Your task to perform on an android device: toggle pop-ups in chrome Image 0: 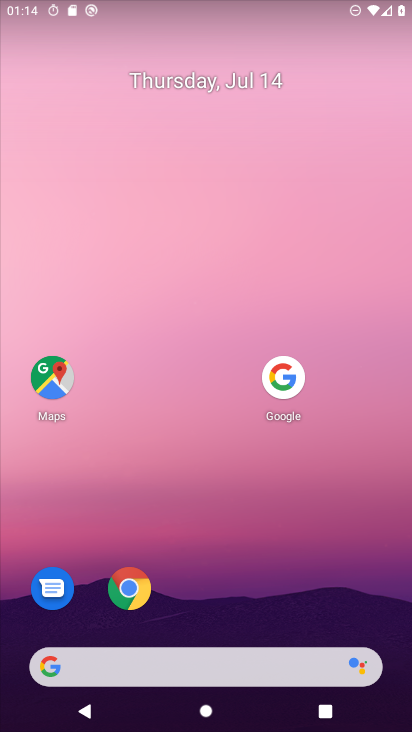
Step 0: click (119, 585)
Your task to perform on an android device: toggle pop-ups in chrome Image 1: 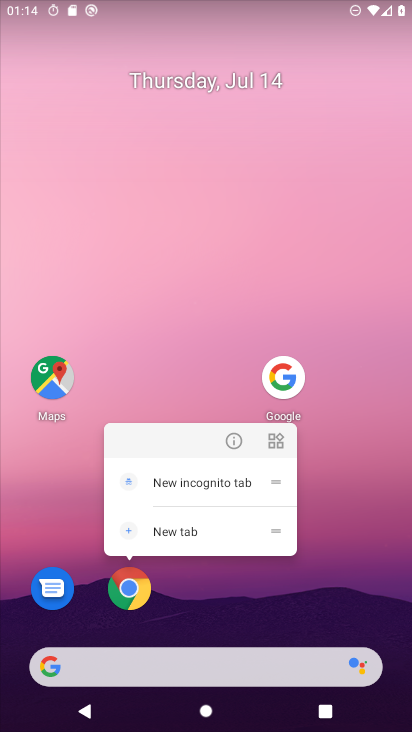
Step 1: click (122, 589)
Your task to perform on an android device: toggle pop-ups in chrome Image 2: 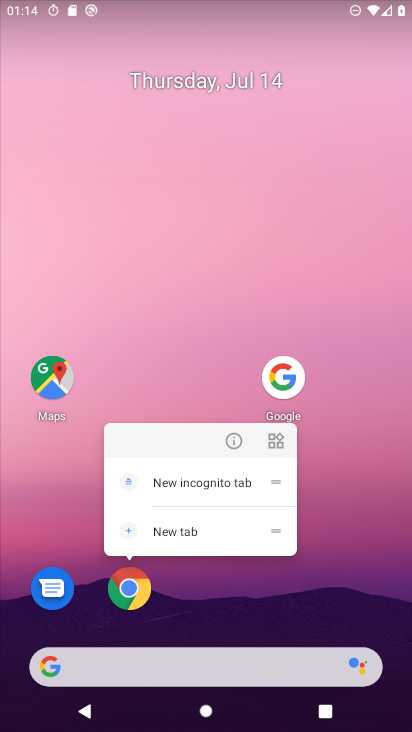
Step 2: click (130, 588)
Your task to perform on an android device: toggle pop-ups in chrome Image 3: 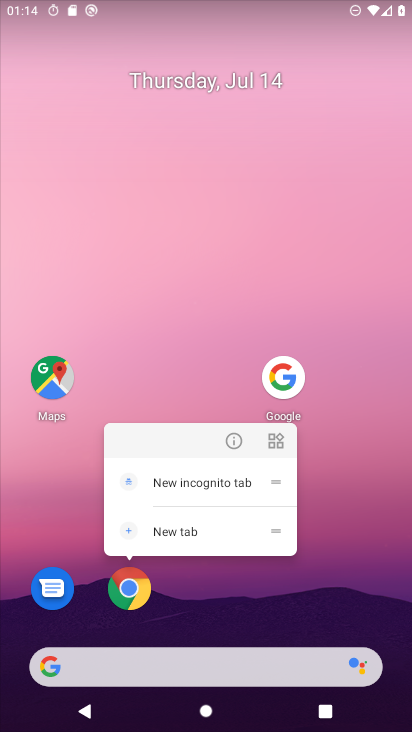
Step 3: click (130, 593)
Your task to perform on an android device: toggle pop-ups in chrome Image 4: 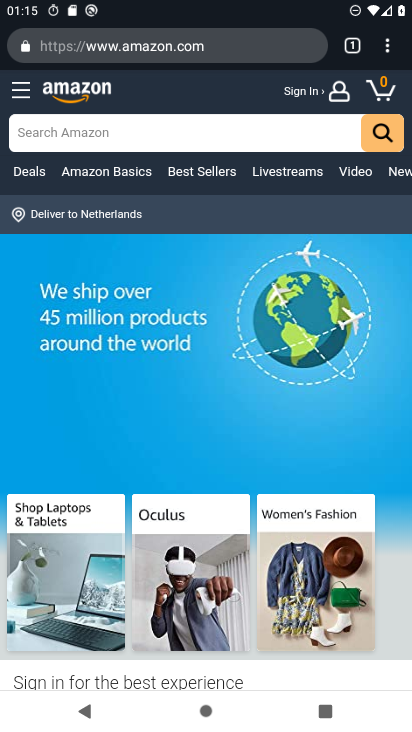
Step 4: drag from (389, 45) to (263, 585)
Your task to perform on an android device: toggle pop-ups in chrome Image 5: 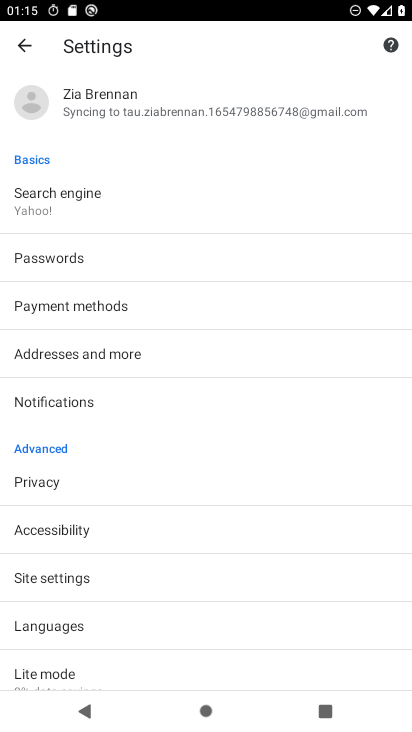
Step 5: click (80, 572)
Your task to perform on an android device: toggle pop-ups in chrome Image 6: 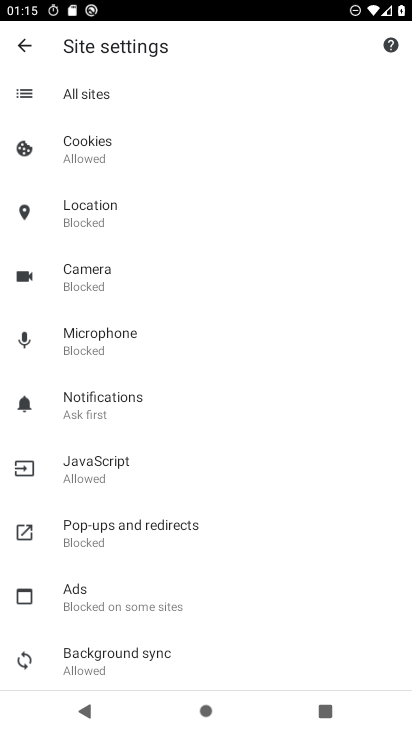
Step 6: click (132, 541)
Your task to perform on an android device: toggle pop-ups in chrome Image 7: 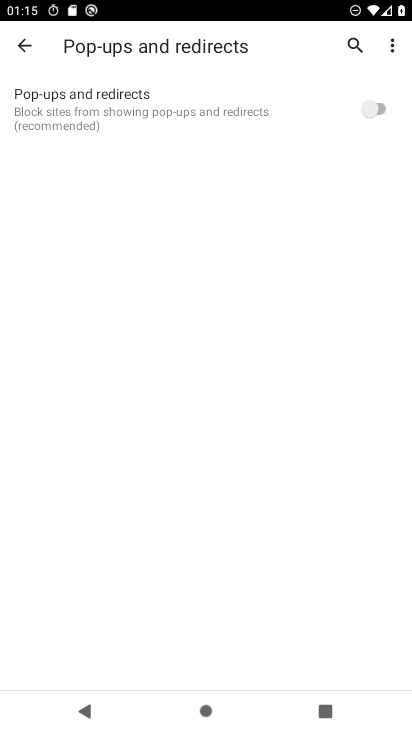
Step 7: click (380, 98)
Your task to perform on an android device: toggle pop-ups in chrome Image 8: 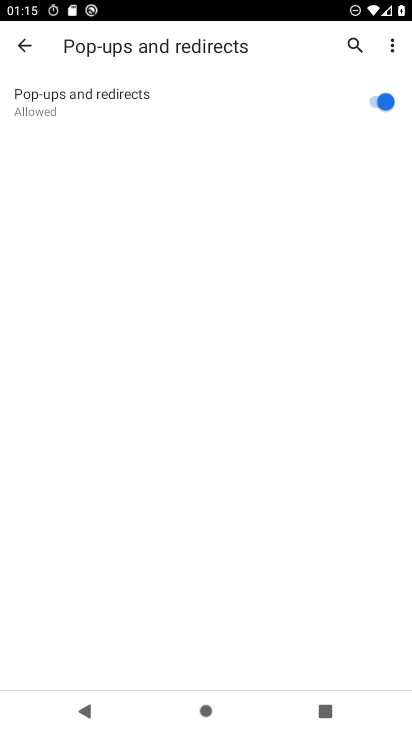
Step 8: task complete